Your task to perform on an android device: Turn on the flashlight Image 0: 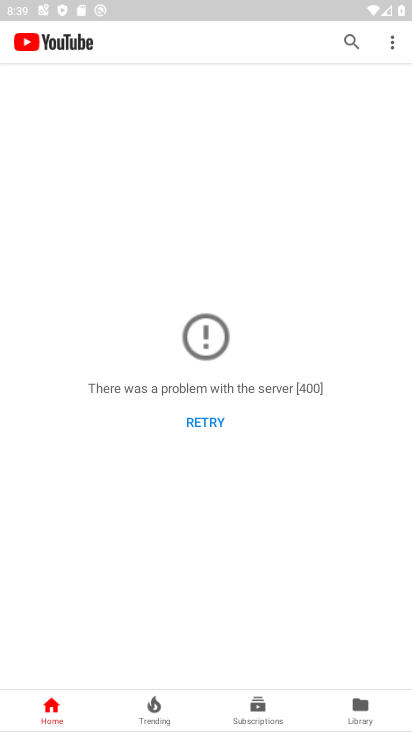
Step 0: press home button
Your task to perform on an android device: Turn on the flashlight Image 1: 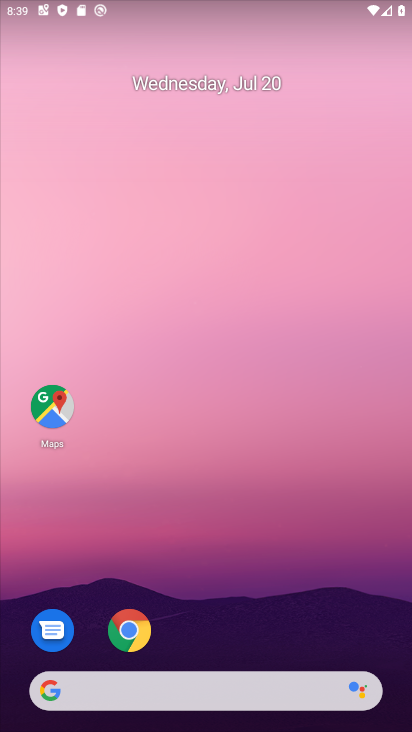
Step 1: drag from (386, 682) to (378, 159)
Your task to perform on an android device: Turn on the flashlight Image 2: 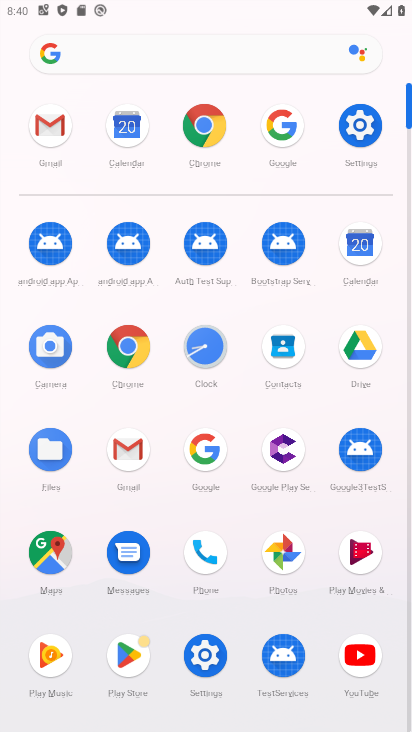
Step 2: click (367, 114)
Your task to perform on an android device: Turn on the flashlight Image 3: 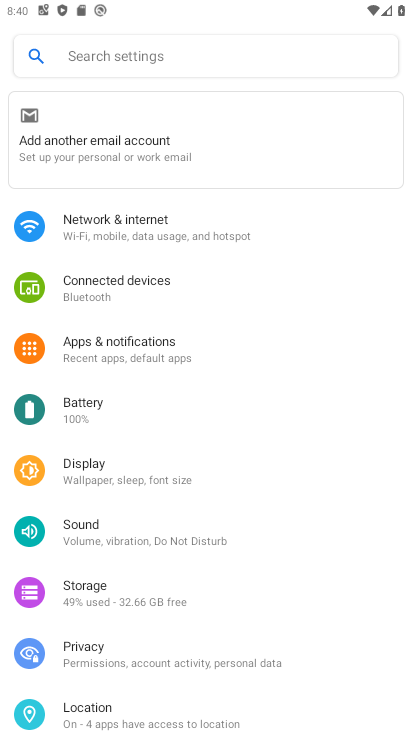
Step 3: click (92, 464)
Your task to perform on an android device: Turn on the flashlight Image 4: 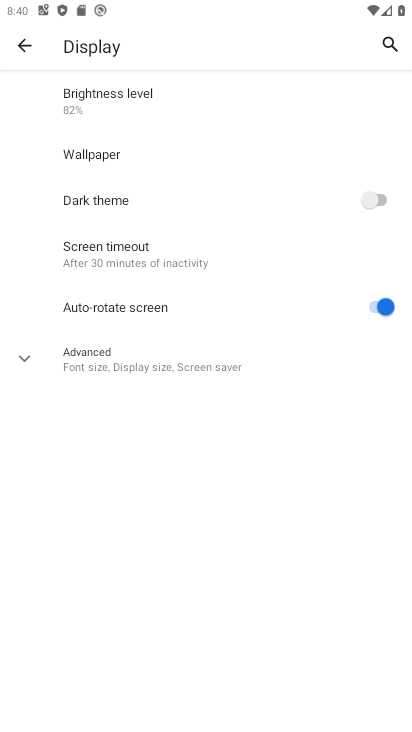
Step 4: click (28, 365)
Your task to perform on an android device: Turn on the flashlight Image 5: 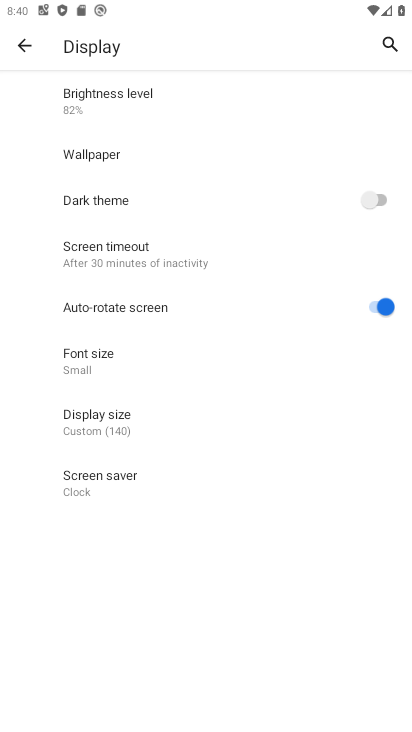
Step 5: task complete